Your task to perform on an android device: Go to Amazon Image 0: 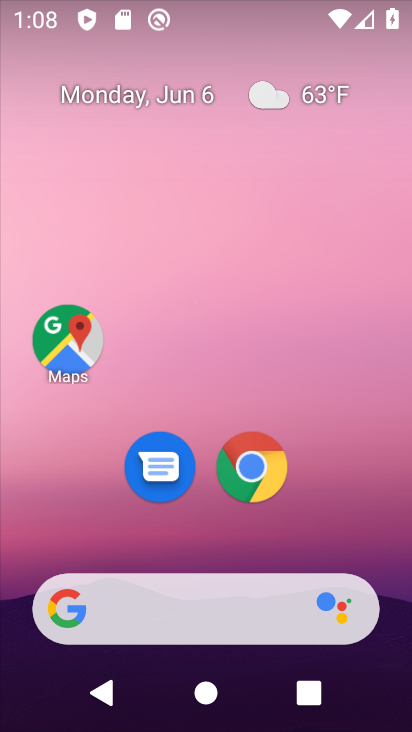
Step 0: drag from (403, 625) to (323, 226)
Your task to perform on an android device: Go to Amazon Image 1: 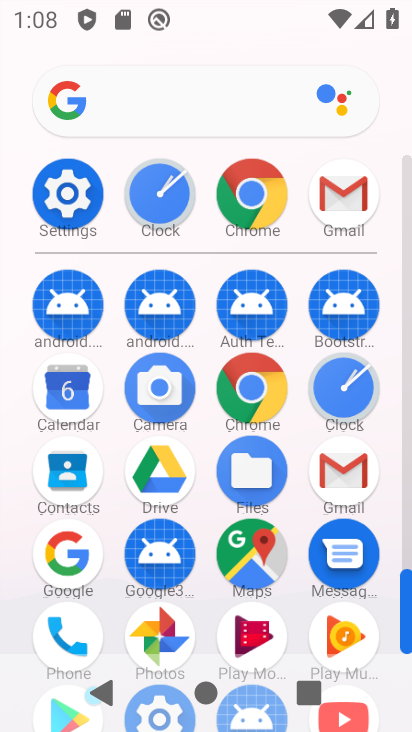
Step 1: click (81, 538)
Your task to perform on an android device: Go to Amazon Image 2: 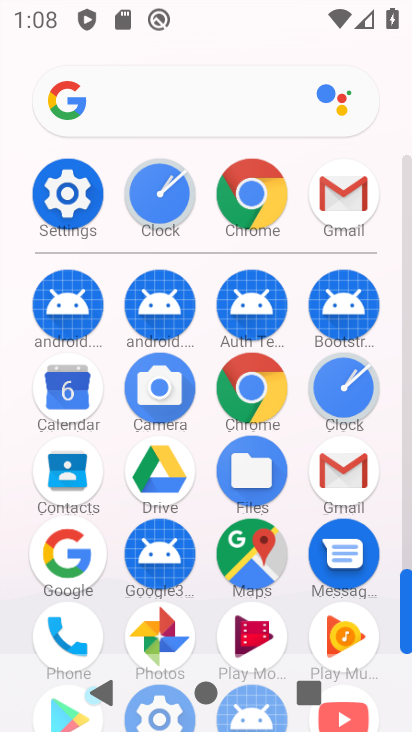
Step 2: click (67, 565)
Your task to perform on an android device: Go to Amazon Image 3: 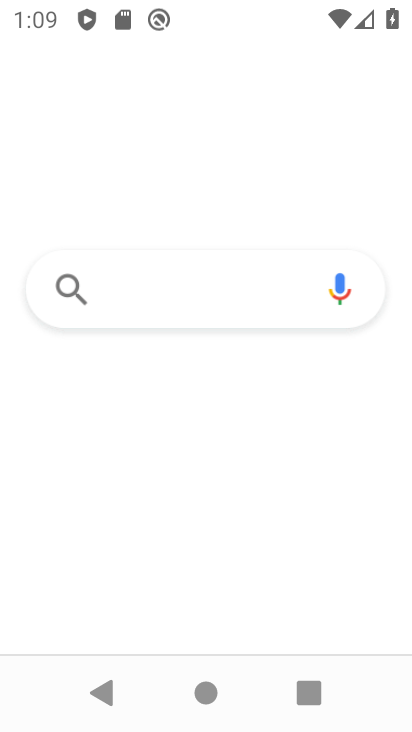
Step 3: click (130, 300)
Your task to perform on an android device: Go to Amazon Image 4: 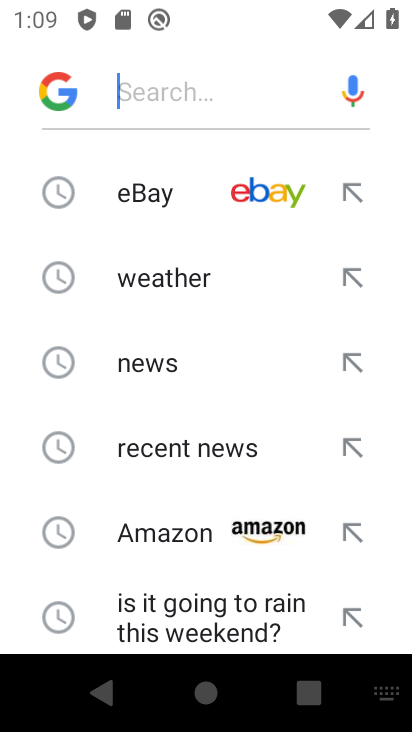
Step 4: click (191, 538)
Your task to perform on an android device: Go to Amazon Image 5: 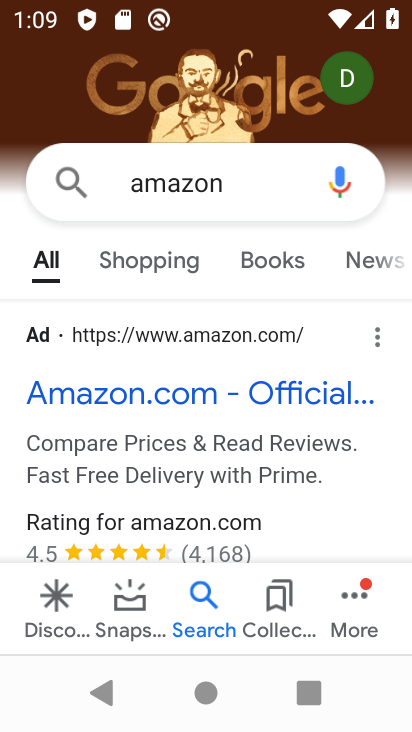
Step 5: task complete